Your task to perform on an android device: move an email to a new category in the gmail app Image 0: 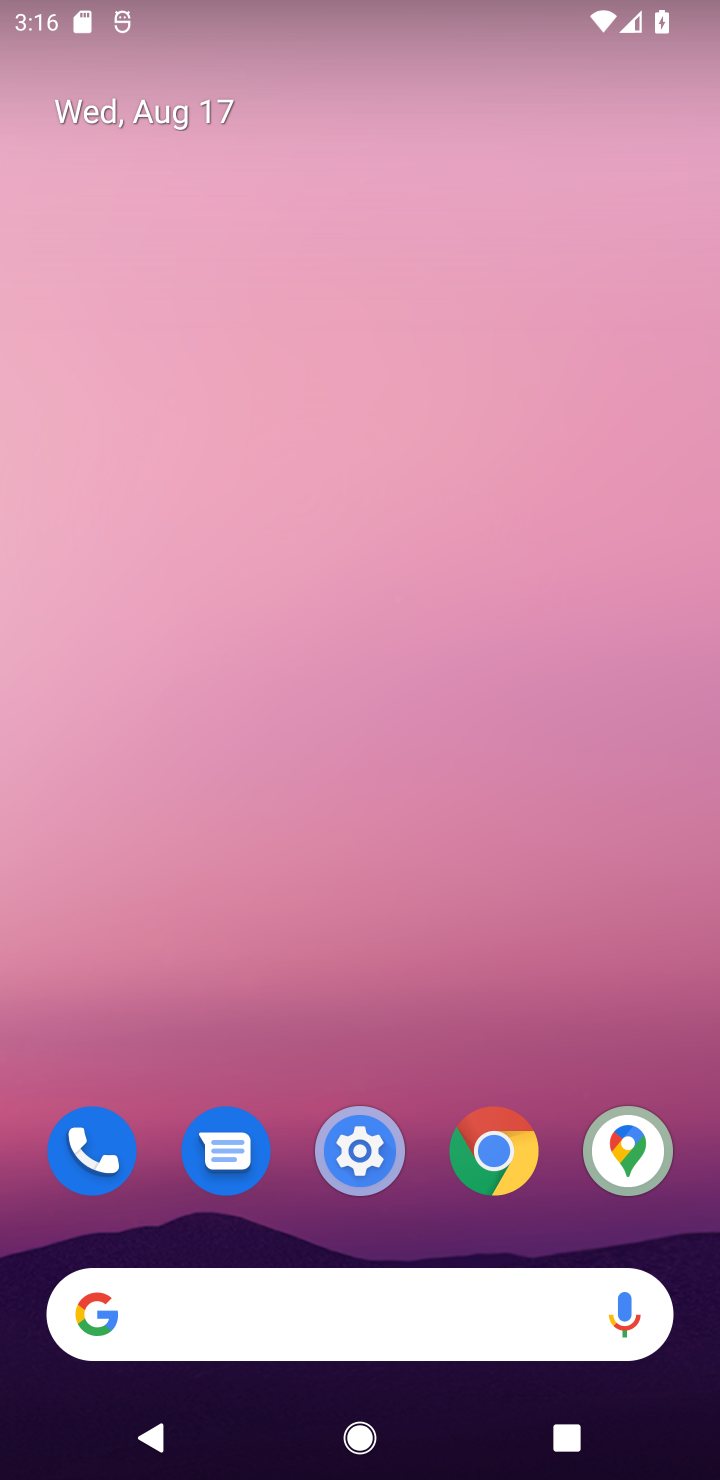
Step 0: drag from (448, 1245) to (402, 358)
Your task to perform on an android device: move an email to a new category in the gmail app Image 1: 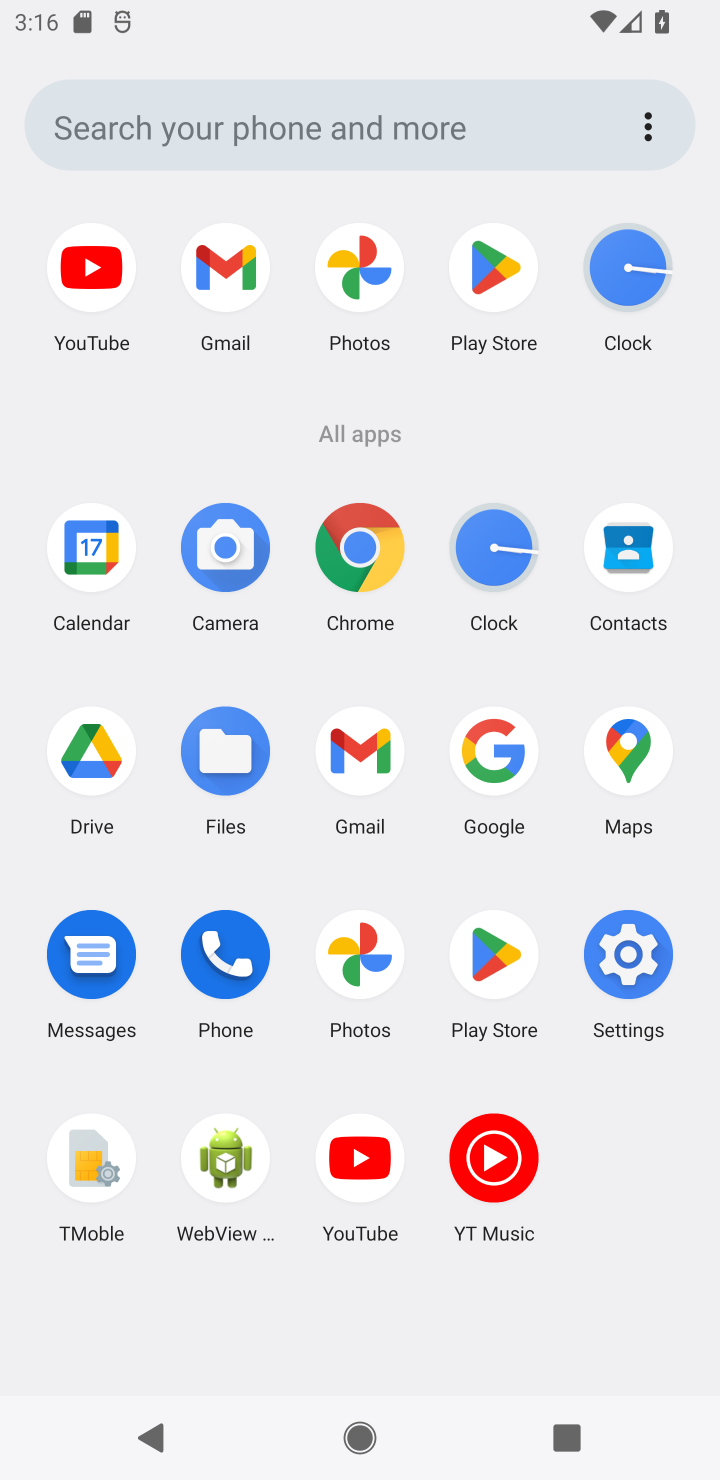
Step 1: click (251, 297)
Your task to perform on an android device: move an email to a new category in the gmail app Image 2: 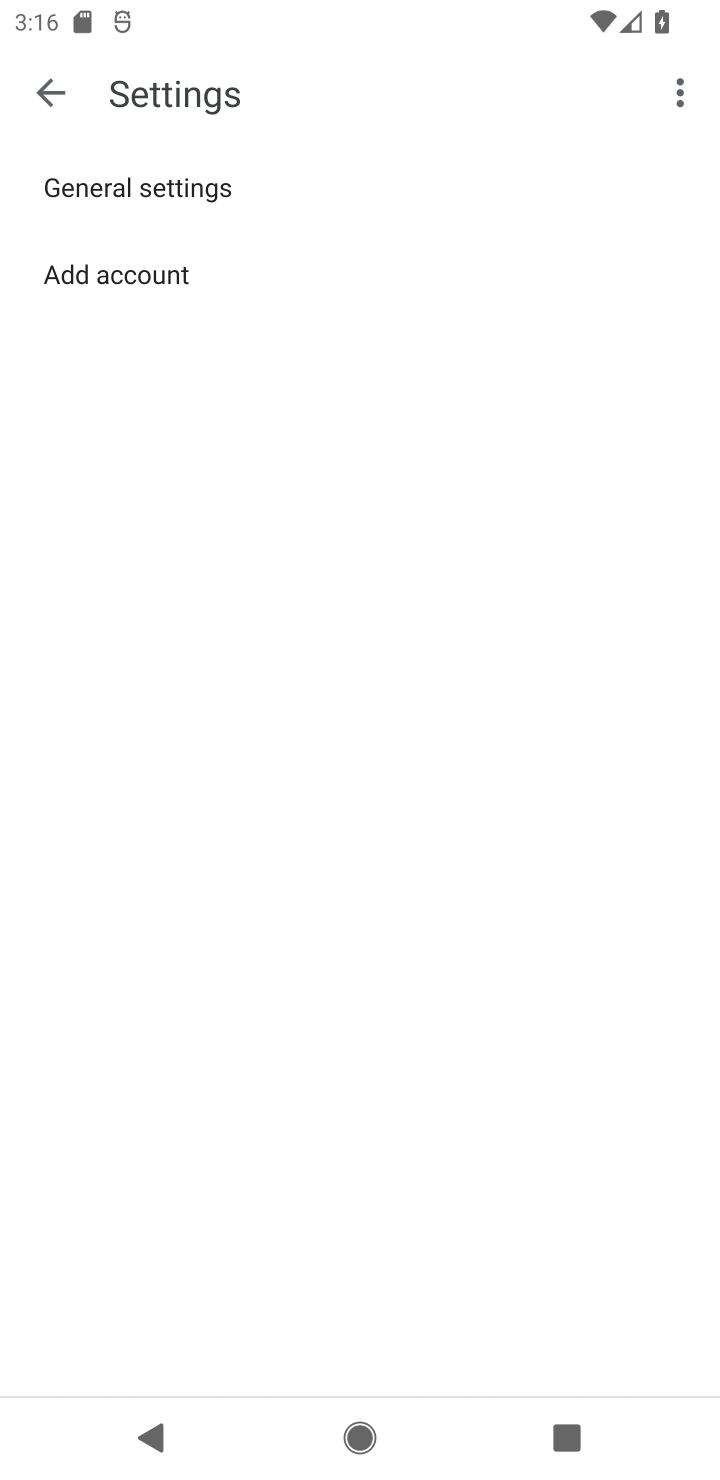
Step 2: click (54, 102)
Your task to perform on an android device: move an email to a new category in the gmail app Image 3: 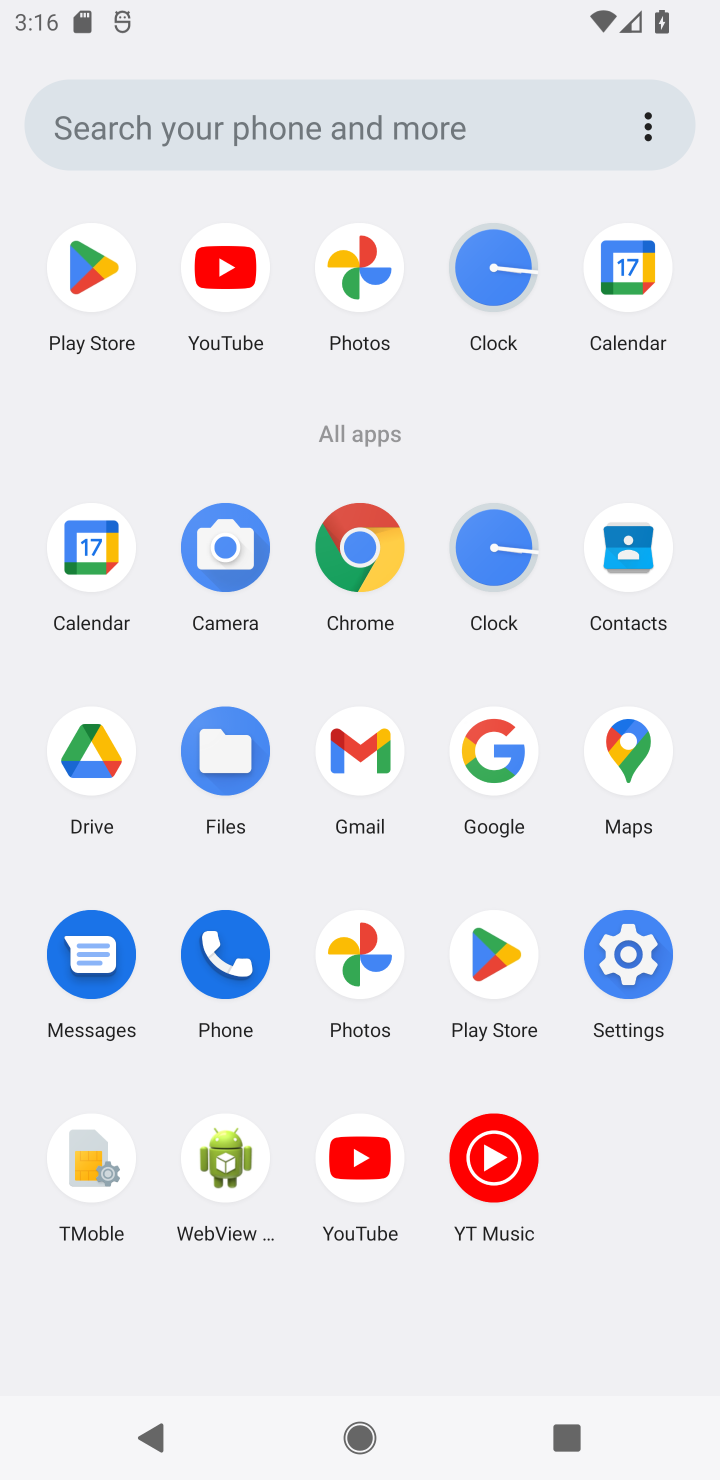
Step 3: click (403, 774)
Your task to perform on an android device: move an email to a new category in the gmail app Image 4: 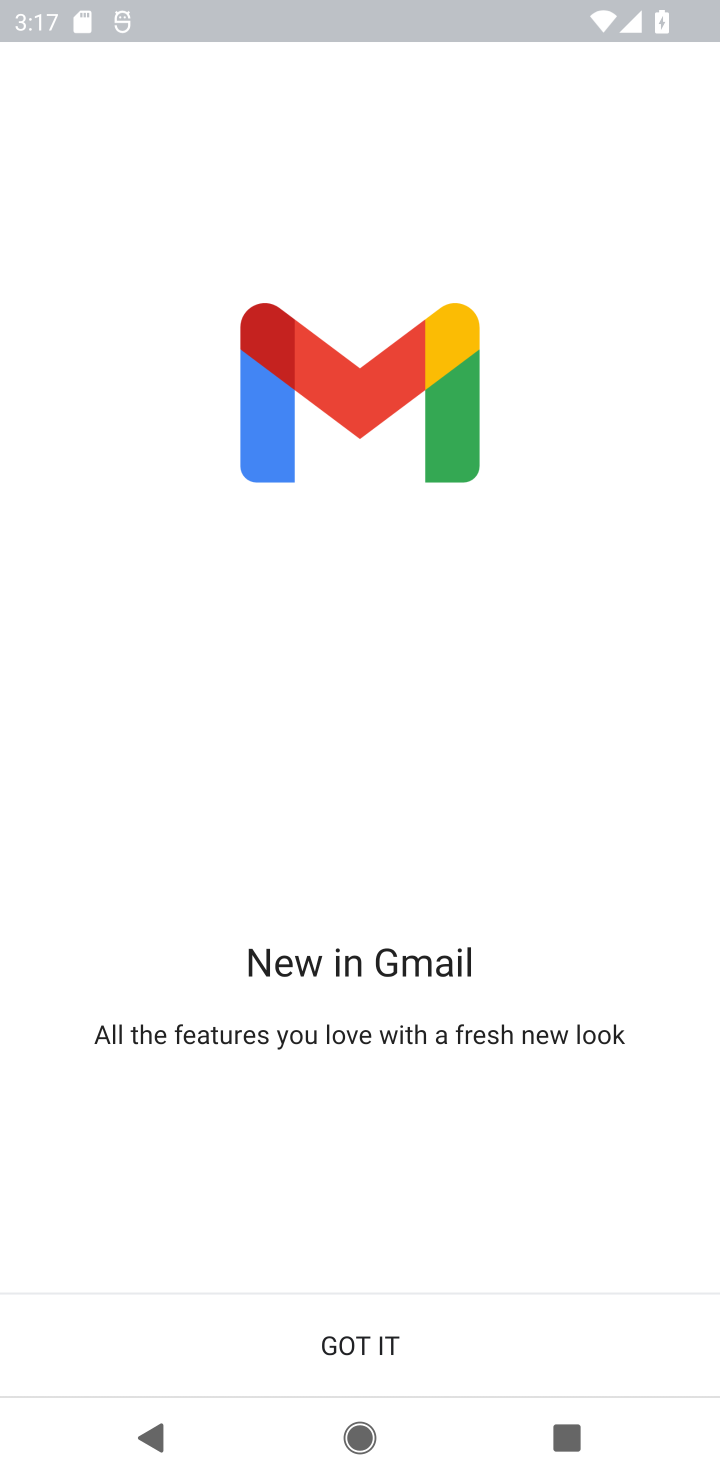
Step 4: click (340, 1337)
Your task to perform on an android device: move an email to a new category in the gmail app Image 5: 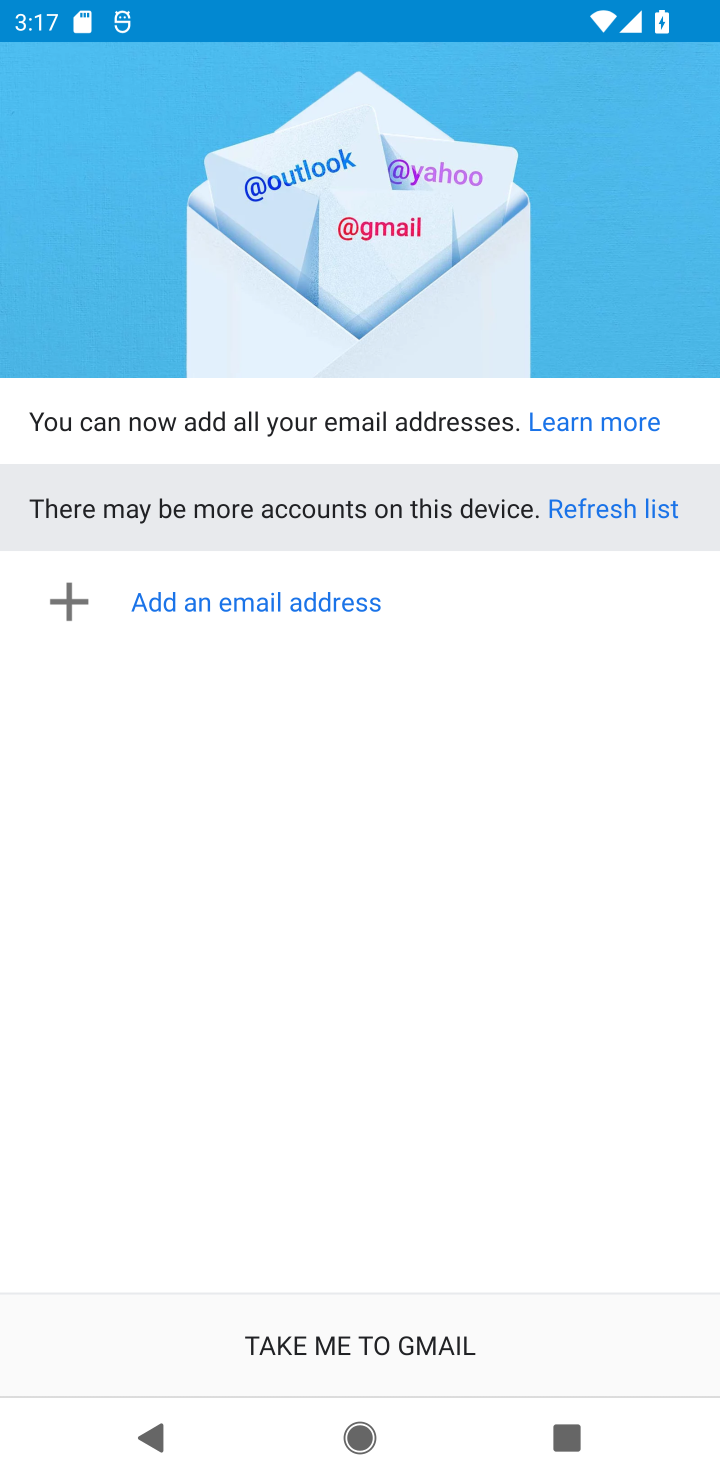
Step 5: click (340, 1337)
Your task to perform on an android device: move an email to a new category in the gmail app Image 6: 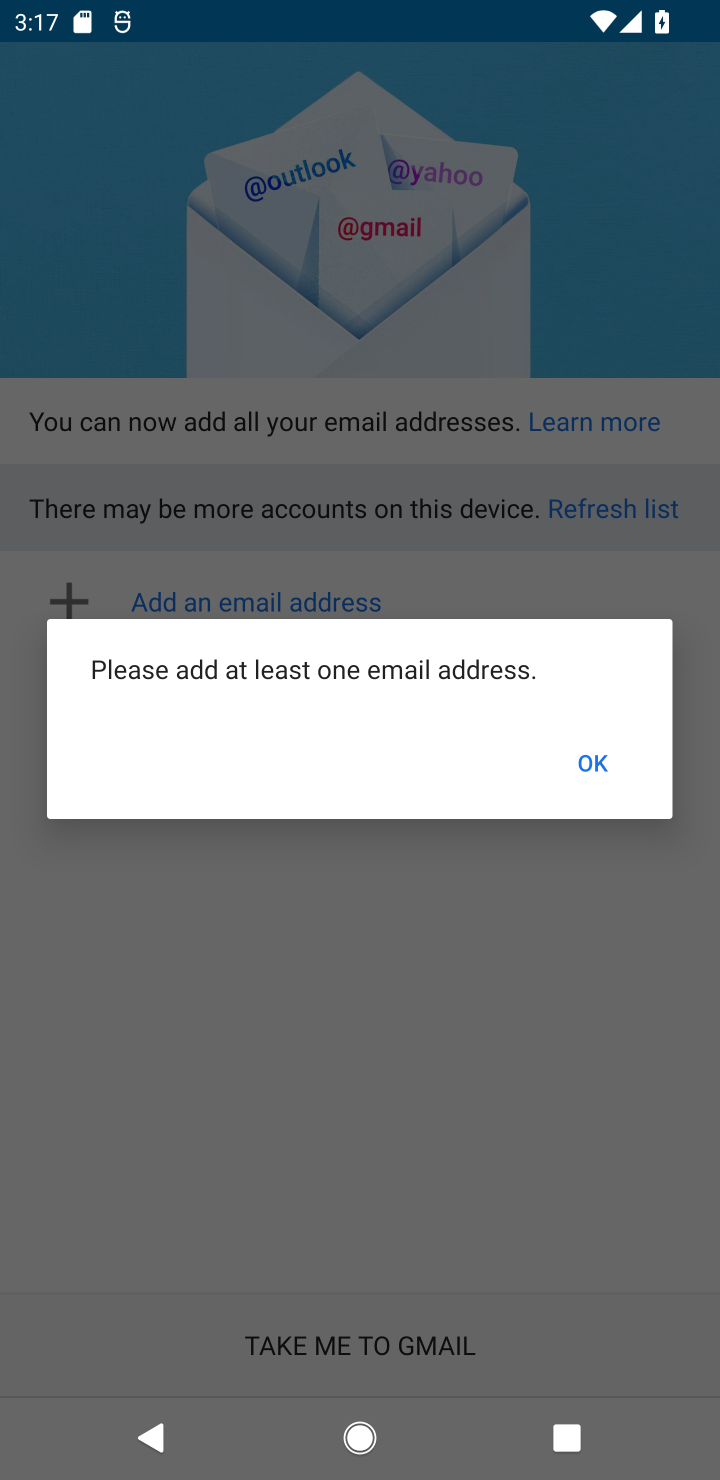
Step 6: task complete